Your task to perform on an android device: turn off location history Image 0: 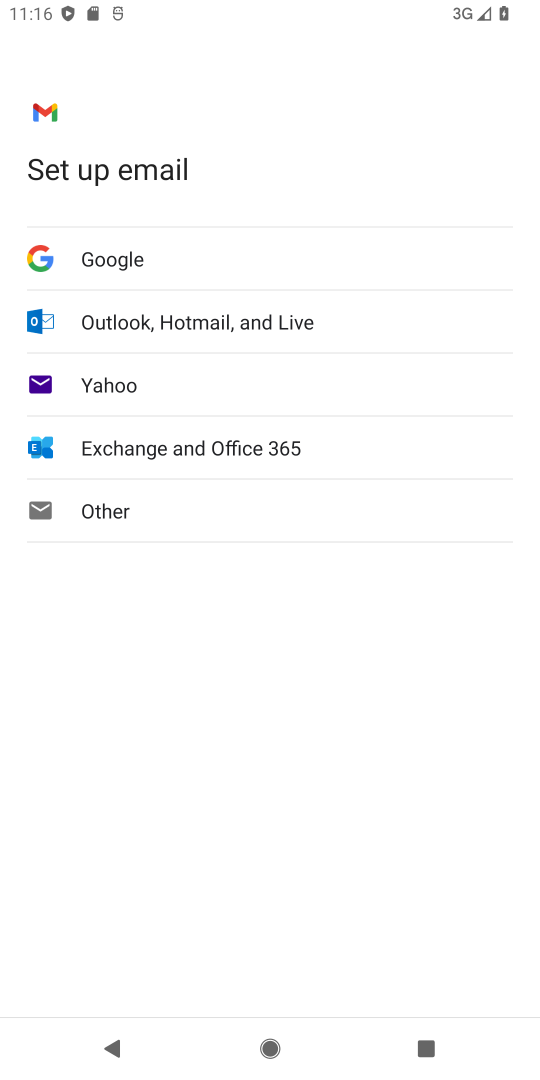
Step 0: press home button
Your task to perform on an android device: turn off location history Image 1: 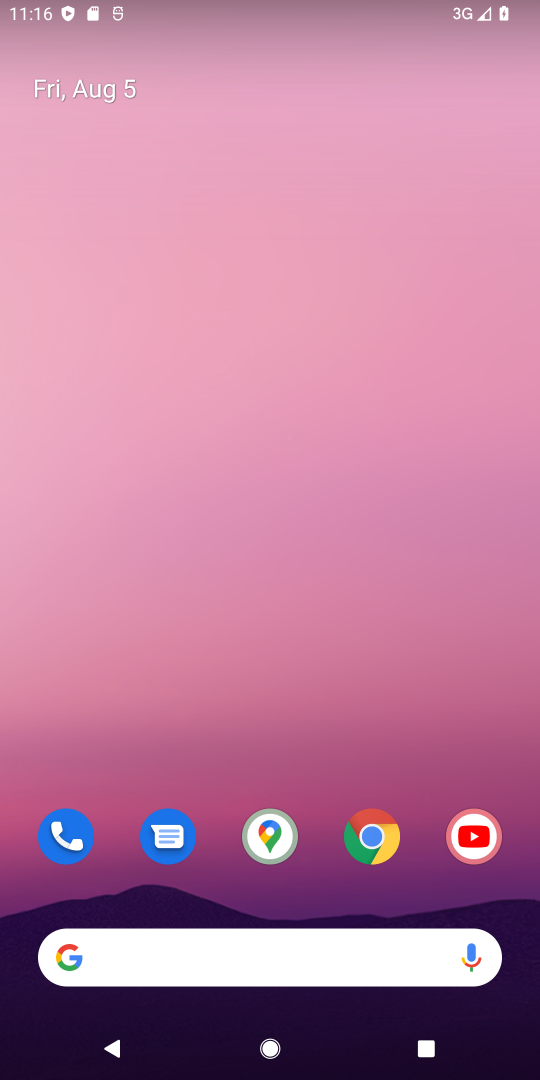
Step 1: drag from (318, 864) to (375, 113)
Your task to perform on an android device: turn off location history Image 2: 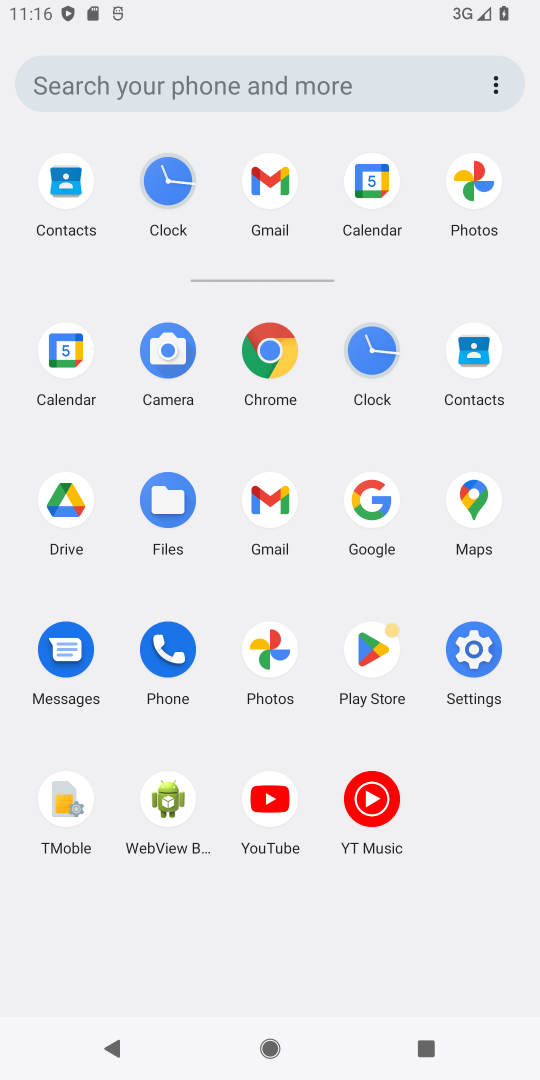
Step 2: click (497, 644)
Your task to perform on an android device: turn off location history Image 3: 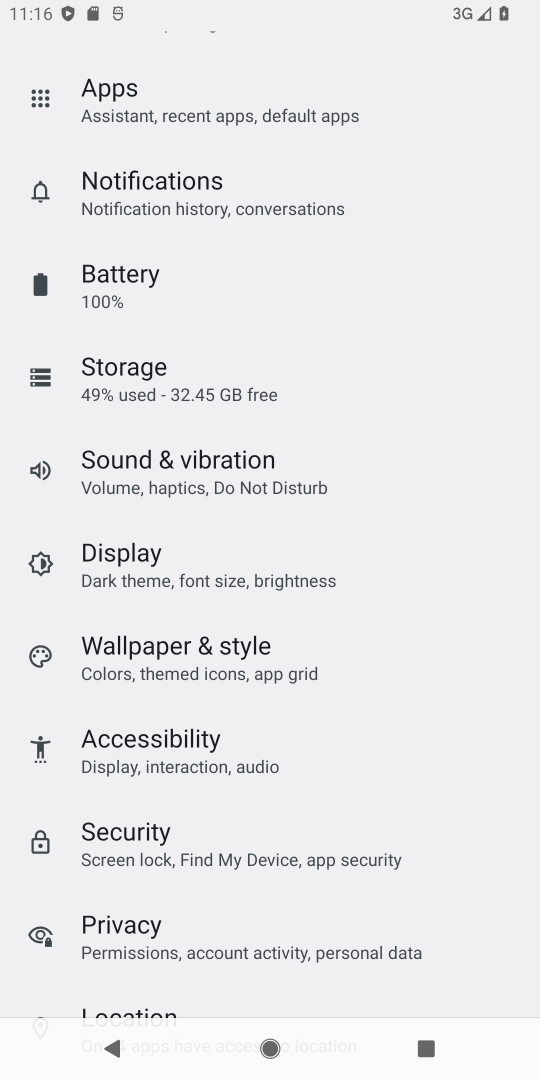
Step 3: drag from (296, 305) to (267, 743)
Your task to perform on an android device: turn off location history Image 4: 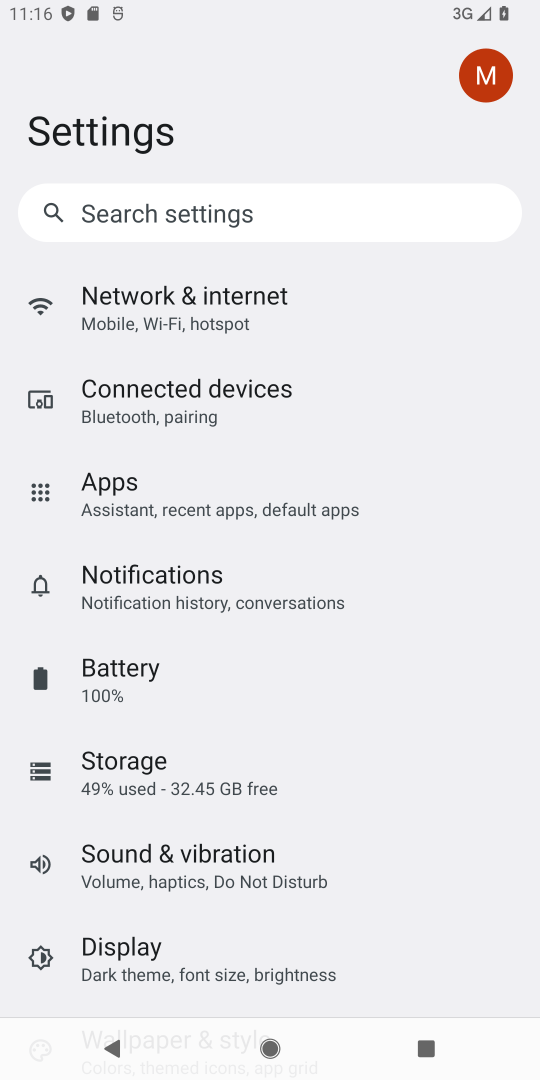
Step 4: drag from (339, 820) to (374, 299)
Your task to perform on an android device: turn off location history Image 5: 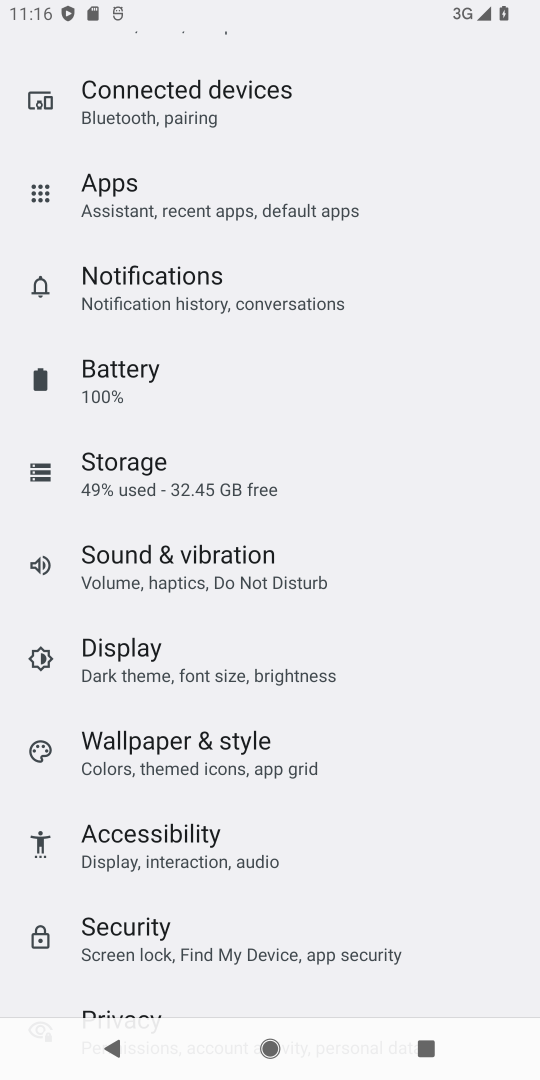
Step 5: drag from (254, 725) to (340, 297)
Your task to perform on an android device: turn off location history Image 6: 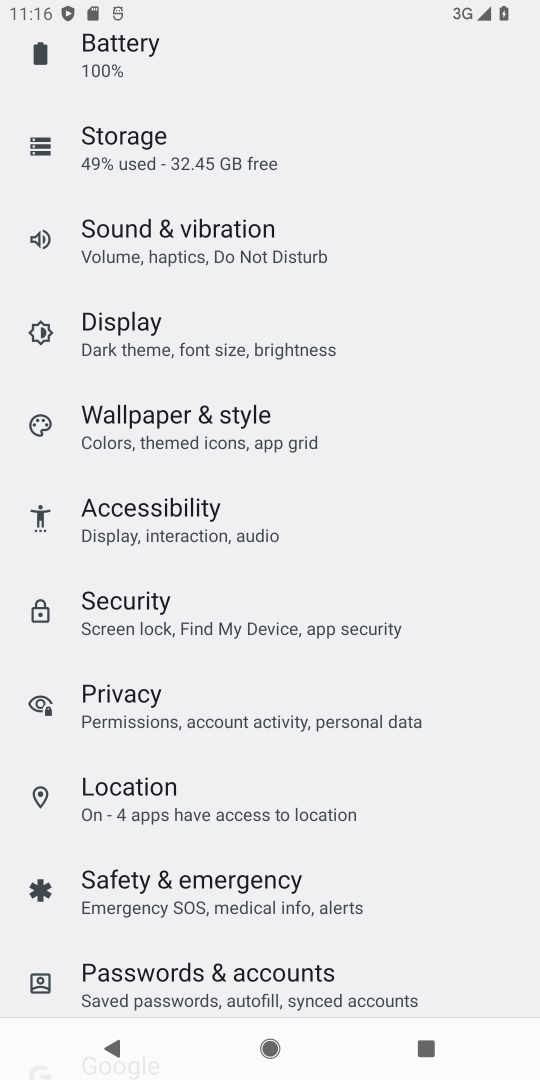
Step 6: click (133, 781)
Your task to perform on an android device: turn off location history Image 7: 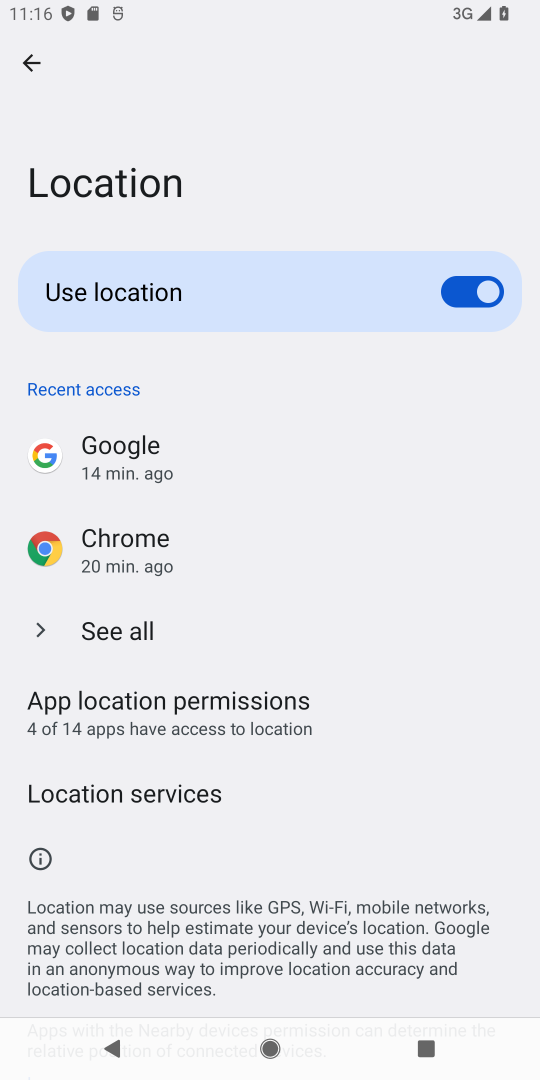
Step 7: task complete